Your task to perform on an android device: change keyboard looks Image 0: 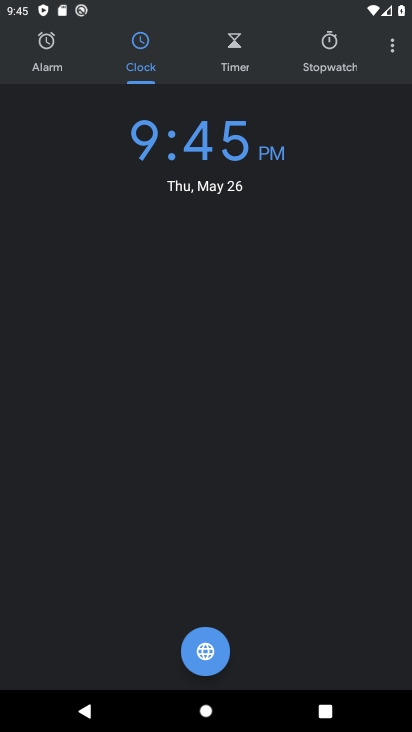
Step 0: press home button
Your task to perform on an android device: change keyboard looks Image 1: 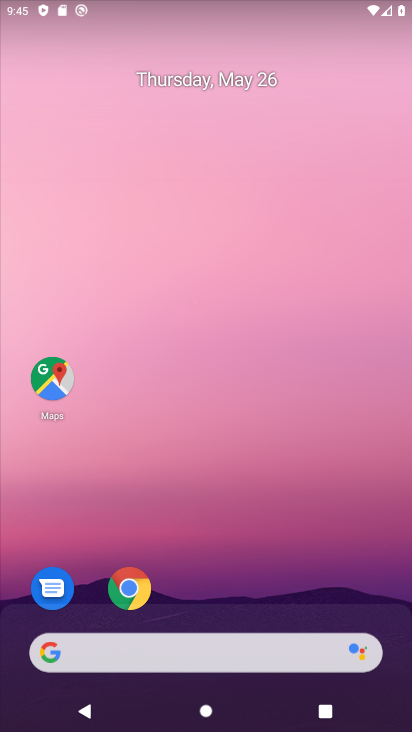
Step 1: drag from (194, 445) to (224, 94)
Your task to perform on an android device: change keyboard looks Image 2: 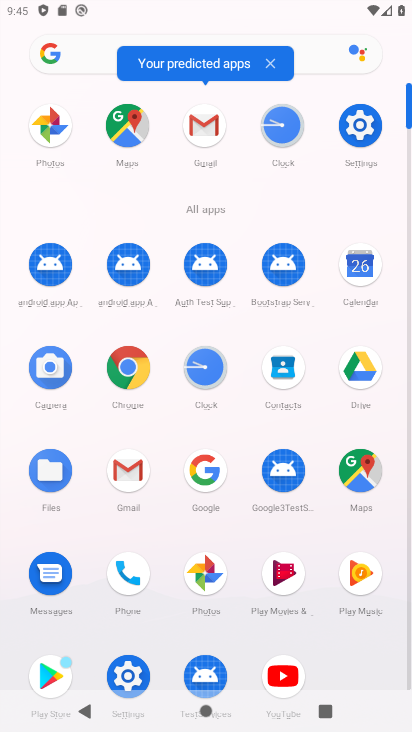
Step 2: click (362, 152)
Your task to perform on an android device: change keyboard looks Image 3: 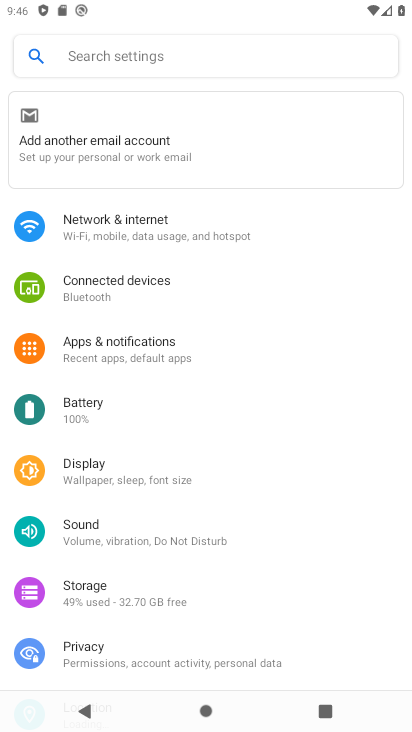
Step 3: drag from (154, 658) to (209, 204)
Your task to perform on an android device: change keyboard looks Image 4: 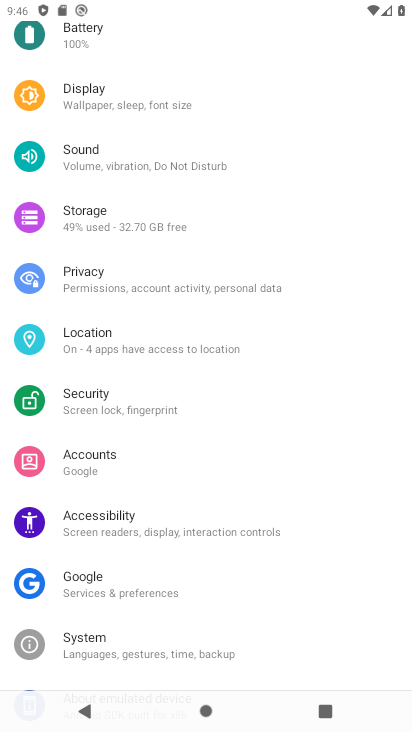
Step 4: click (98, 644)
Your task to perform on an android device: change keyboard looks Image 5: 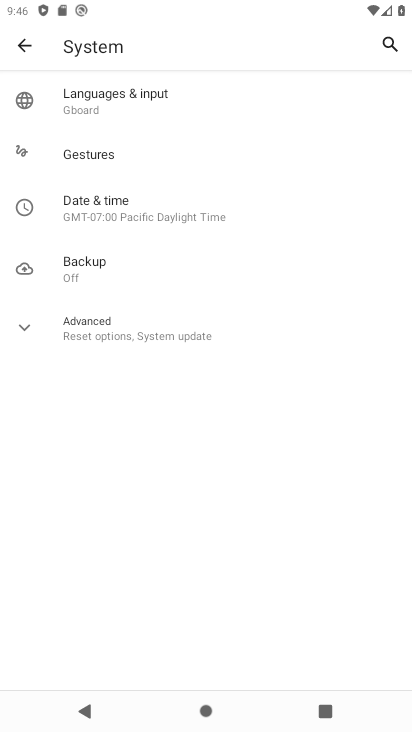
Step 5: click (122, 100)
Your task to perform on an android device: change keyboard looks Image 6: 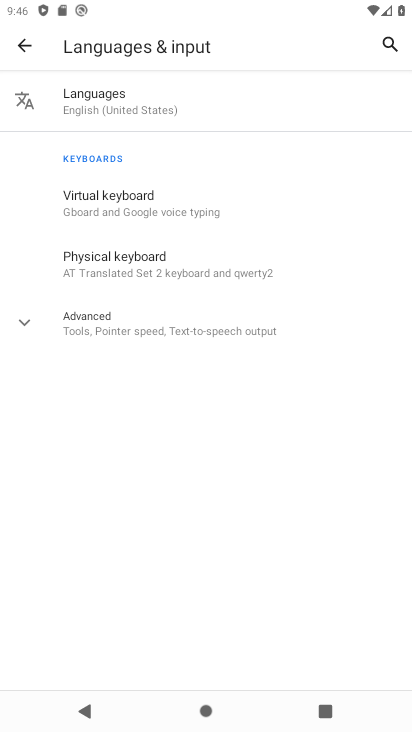
Step 6: click (134, 210)
Your task to perform on an android device: change keyboard looks Image 7: 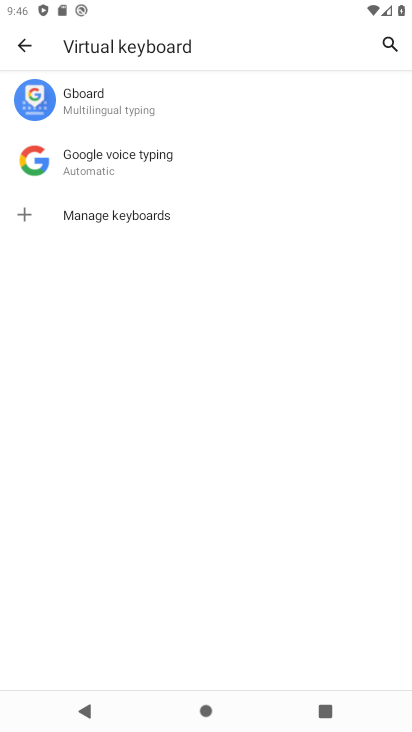
Step 7: click (128, 108)
Your task to perform on an android device: change keyboard looks Image 8: 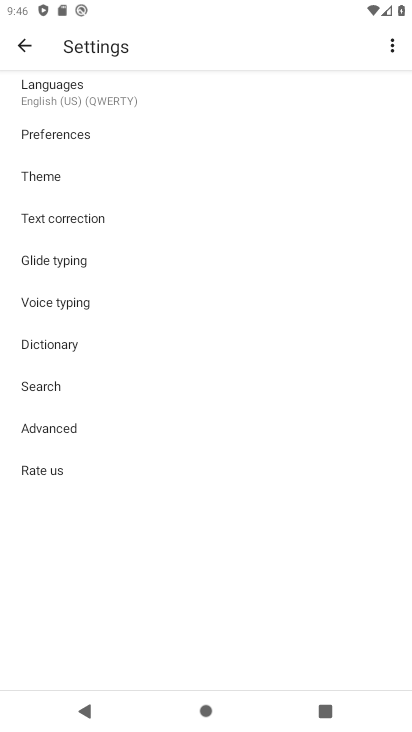
Step 8: click (58, 173)
Your task to perform on an android device: change keyboard looks Image 9: 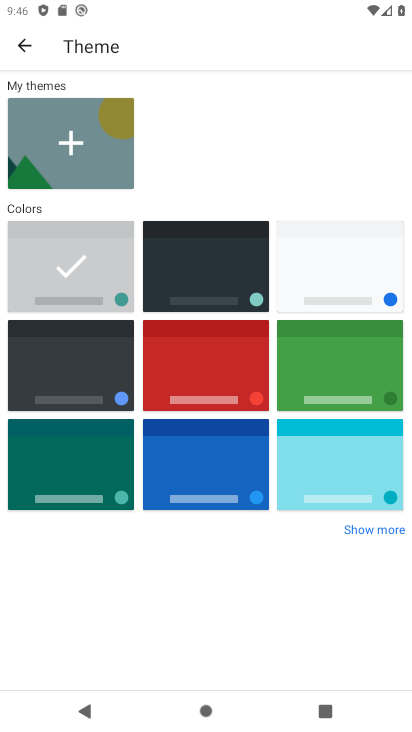
Step 9: click (197, 351)
Your task to perform on an android device: change keyboard looks Image 10: 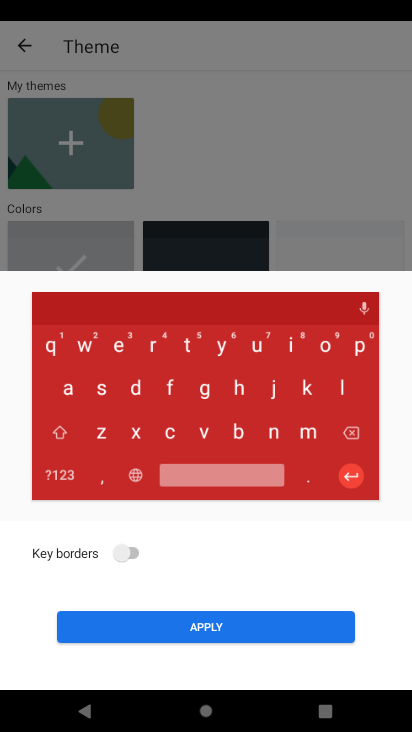
Step 10: click (203, 629)
Your task to perform on an android device: change keyboard looks Image 11: 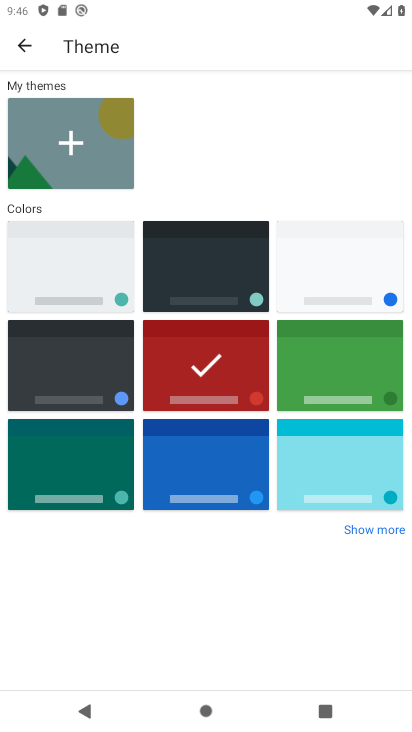
Step 11: task complete